Your task to perform on an android device: search for starred emails in the gmail app Image 0: 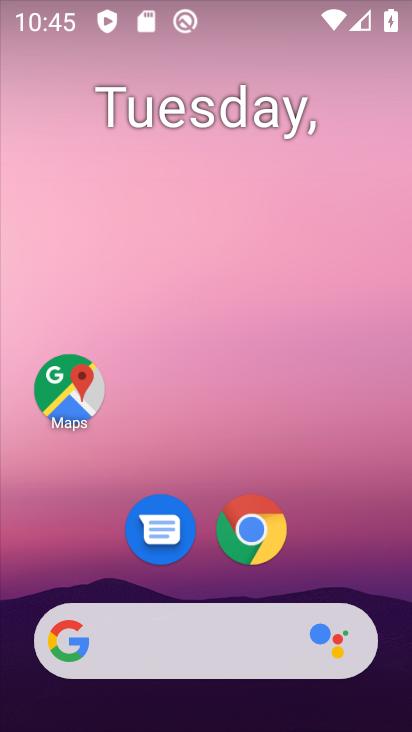
Step 0: drag from (80, 578) to (218, 130)
Your task to perform on an android device: search for starred emails in the gmail app Image 1: 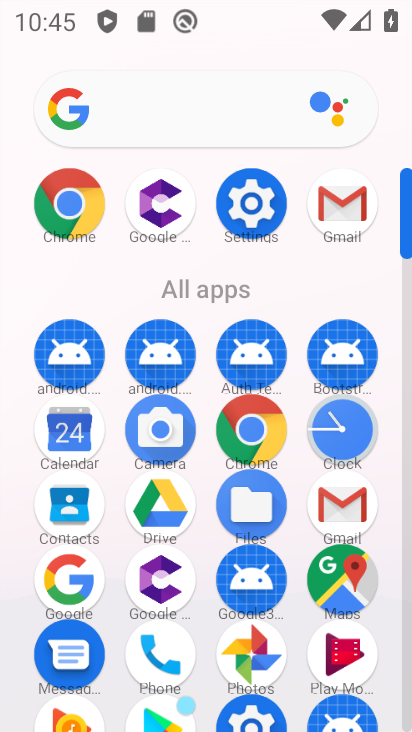
Step 1: click (324, 500)
Your task to perform on an android device: search for starred emails in the gmail app Image 2: 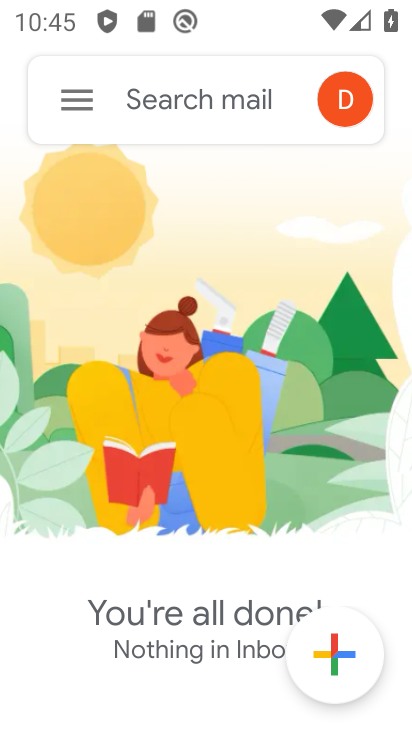
Step 2: click (100, 89)
Your task to perform on an android device: search for starred emails in the gmail app Image 3: 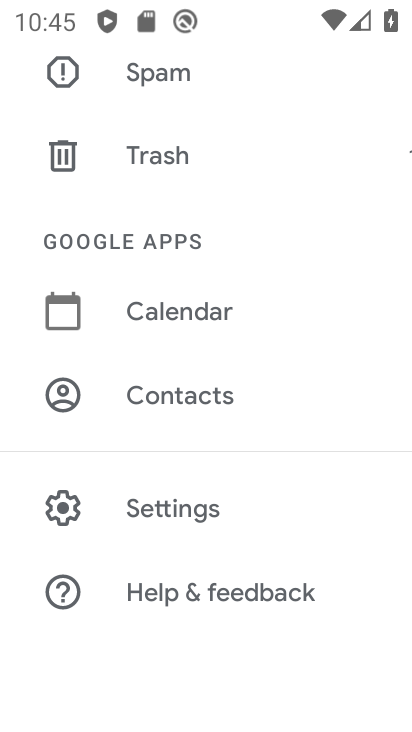
Step 3: drag from (189, 158) to (176, 689)
Your task to perform on an android device: search for starred emails in the gmail app Image 4: 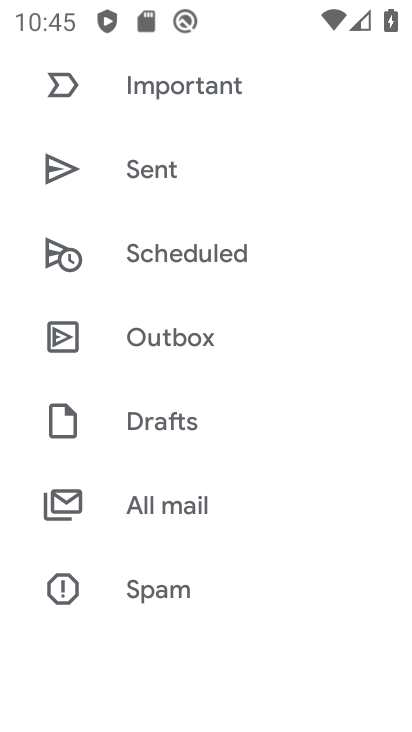
Step 4: drag from (270, 134) to (234, 542)
Your task to perform on an android device: search for starred emails in the gmail app Image 5: 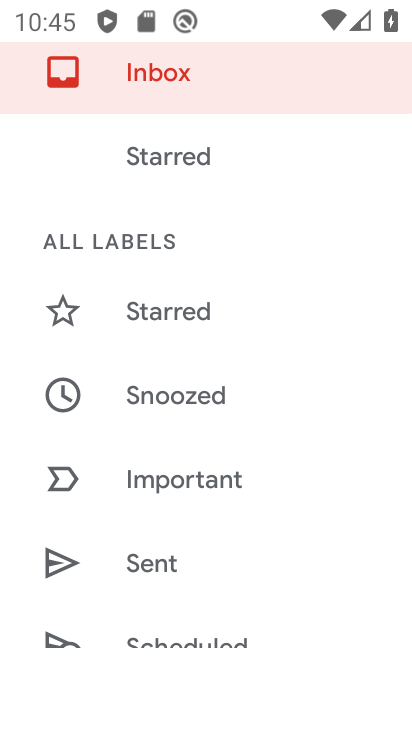
Step 5: click (227, 313)
Your task to perform on an android device: search for starred emails in the gmail app Image 6: 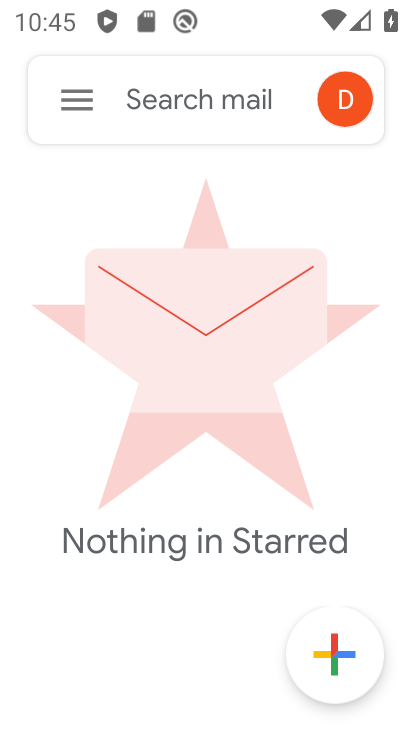
Step 6: task complete